Your task to perform on an android device: check google app version Image 0: 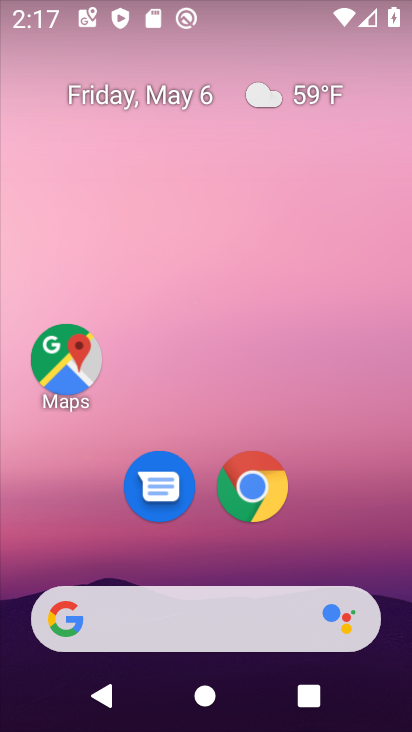
Step 0: click (161, 632)
Your task to perform on an android device: check google app version Image 1: 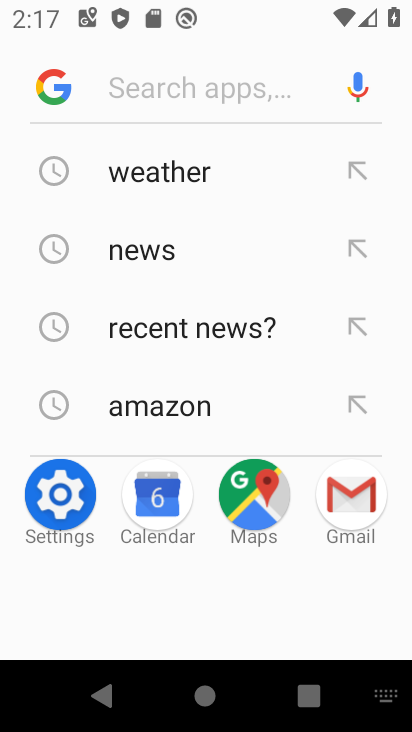
Step 1: click (170, 76)
Your task to perform on an android device: check google app version Image 2: 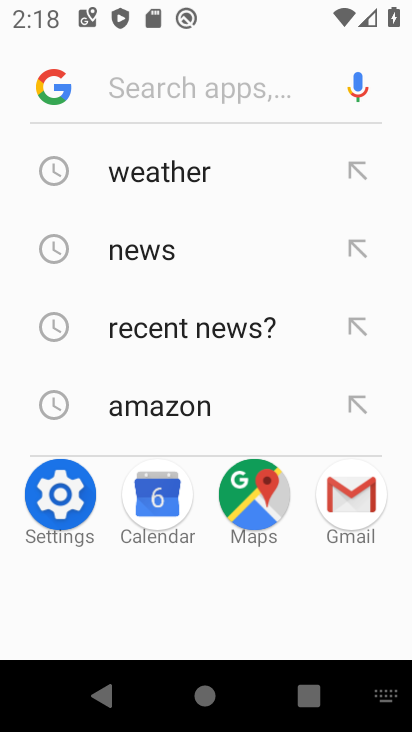
Step 2: press home button
Your task to perform on an android device: check google app version Image 3: 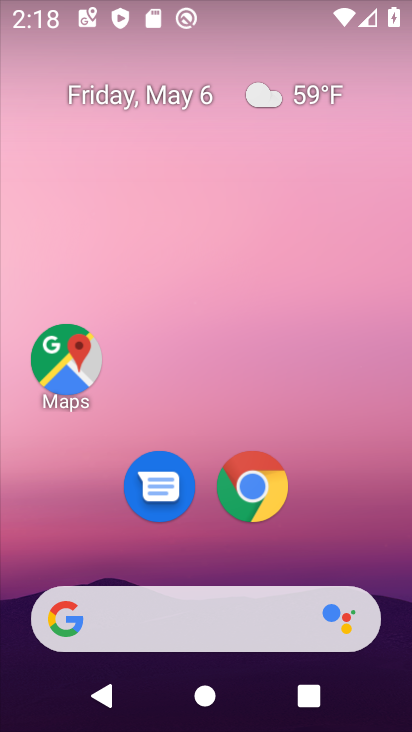
Step 3: drag from (303, 538) to (277, 0)
Your task to perform on an android device: check google app version Image 4: 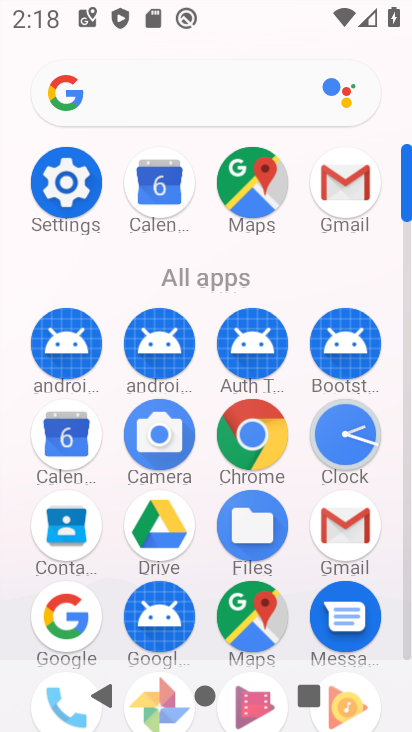
Step 4: click (60, 625)
Your task to perform on an android device: check google app version Image 5: 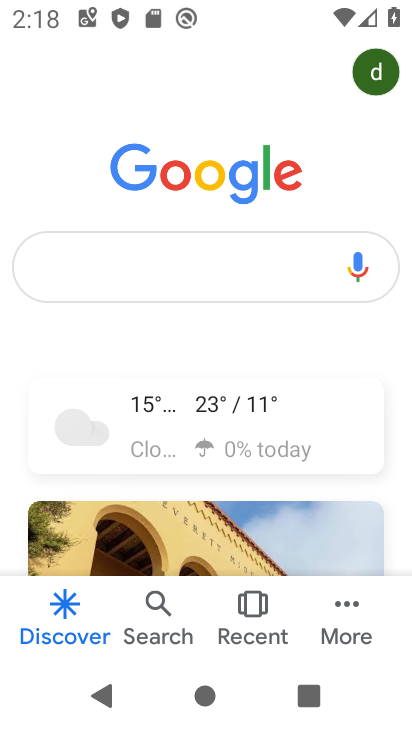
Step 5: click (352, 598)
Your task to perform on an android device: check google app version Image 6: 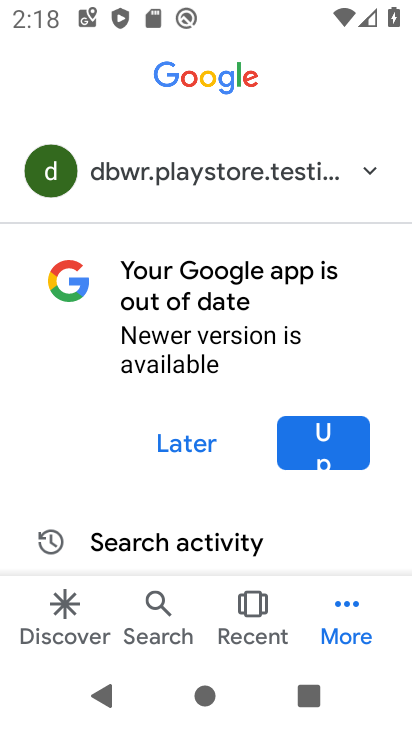
Step 6: drag from (183, 417) to (98, 1)
Your task to perform on an android device: check google app version Image 7: 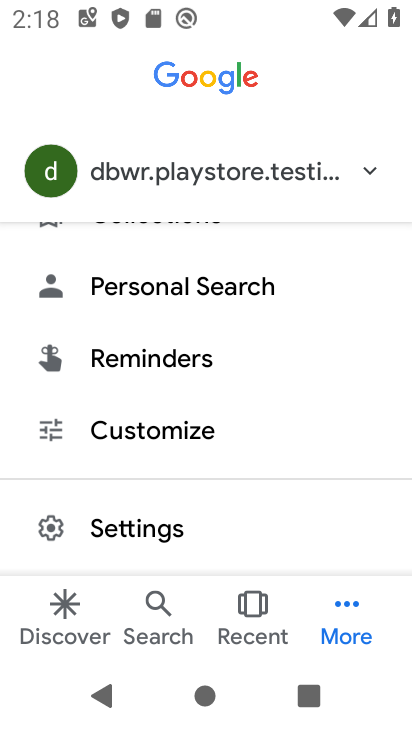
Step 7: click (107, 523)
Your task to perform on an android device: check google app version Image 8: 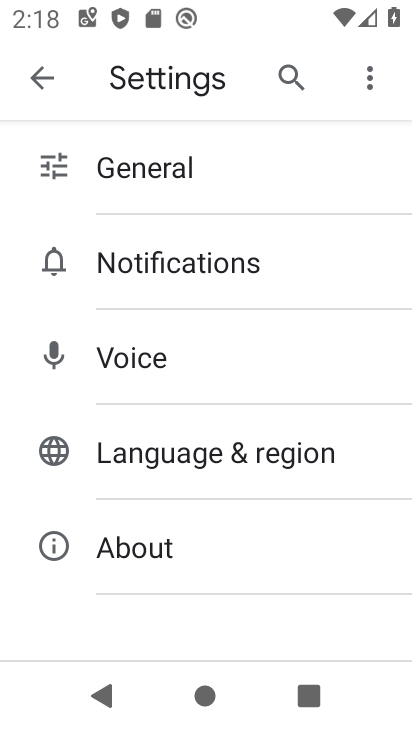
Step 8: click (142, 540)
Your task to perform on an android device: check google app version Image 9: 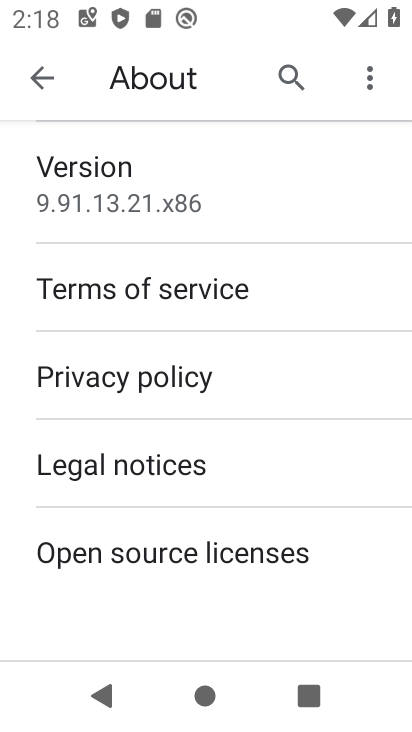
Step 9: task complete